Your task to perform on an android device: turn on the 24-hour format for clock Image 0: 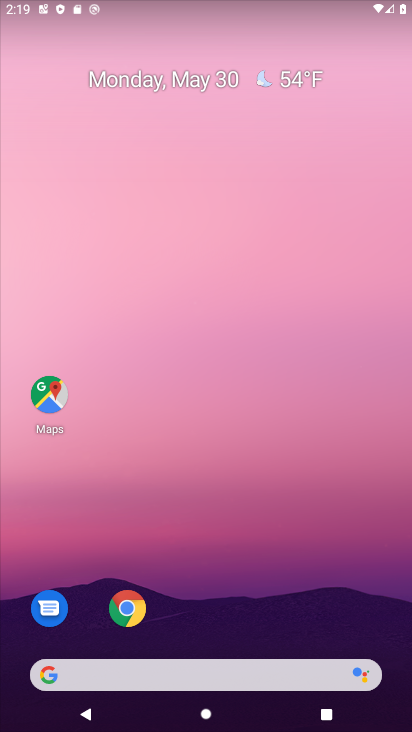
Step 0: drag from (245, 370) to (181, 8)
Your task to perform on an android device: turn on the 24-hour format for clock Image 1: 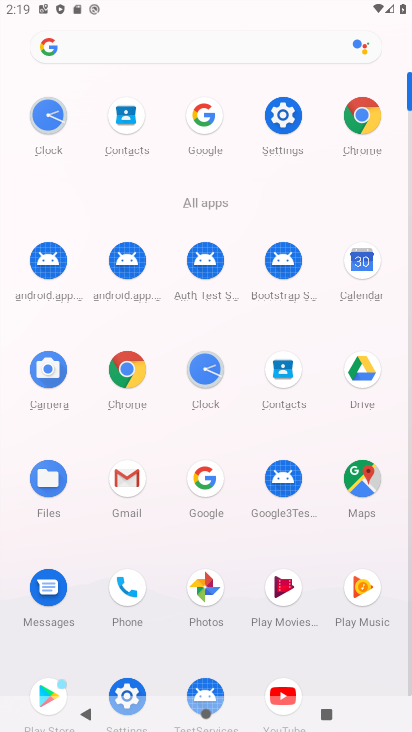
Step 1: click (205, 369)
Your task to perform on an android device: turn on the 24-hour format for clock Image 2: 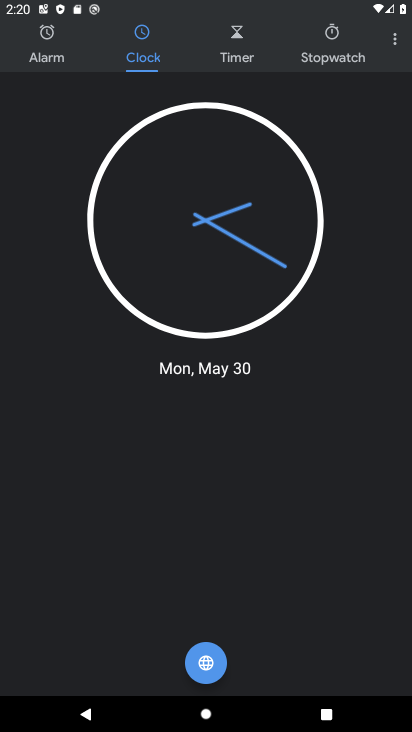
Step 2: click (395, 48)
Your task to perform on an android device: turn on the 24-hour format for clock Image 3: 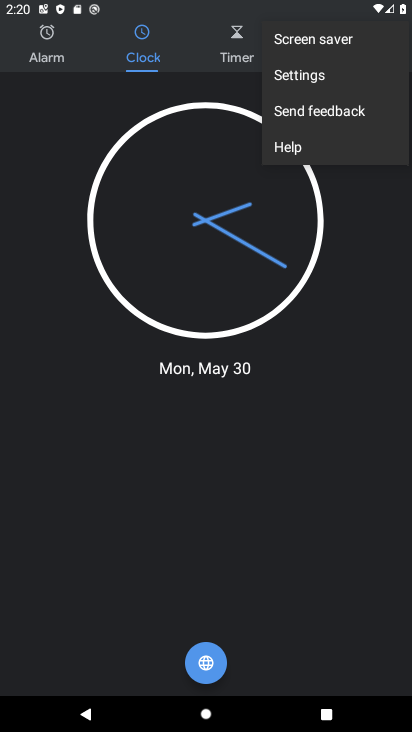
Step 3: click (321, 65)
Your task to perform on an android device: turn on the 24-hour format for clock Image 4: 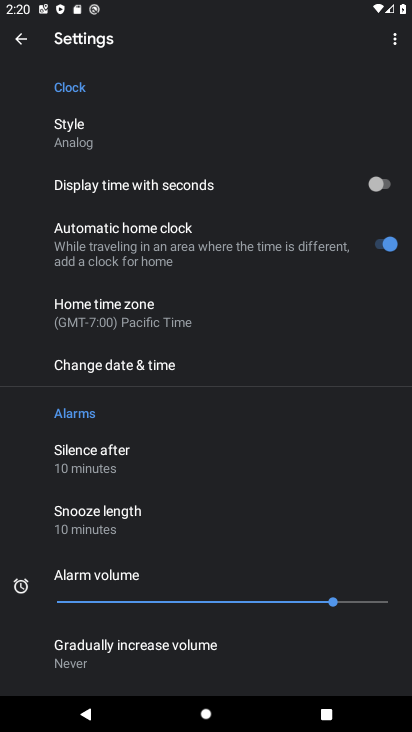
Step 4: click (203, 363)
Your task to perform on an android device: turn on the 24-hour format for clock Image 5: 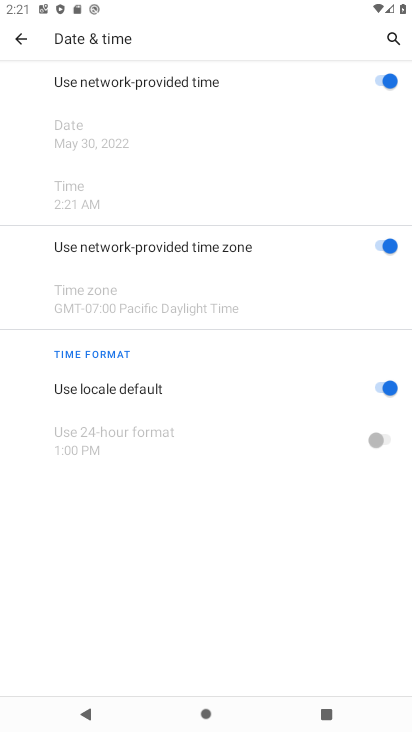
Step 5: click (381, 384)
Your task to perform on an android device: turn on the 24-hour format for clock Image 6: 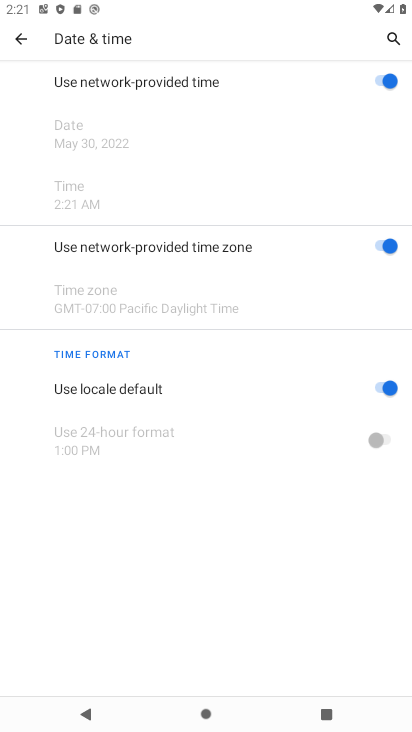
Step 6: click (374, 431)
Your task to perform on an android device: turn on the 24-hour format for clock Image 7: 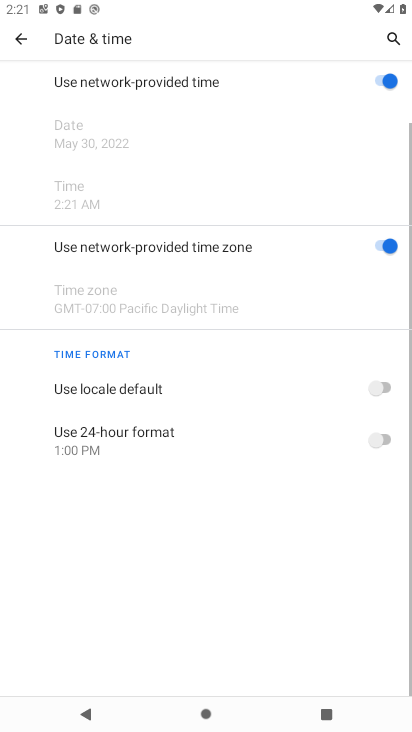
Step 7: task complete